Your task to perform on an android device: Open Reddit.com Image 0: 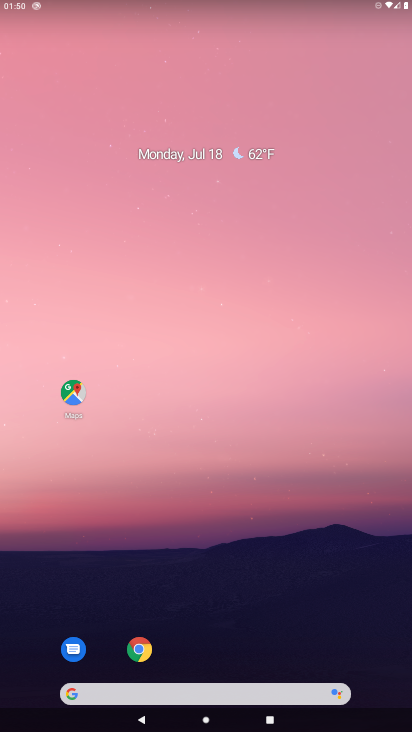
Step 0: click (115, 672)
Your task to perform on an android device: Open Reddit.com Image 1: 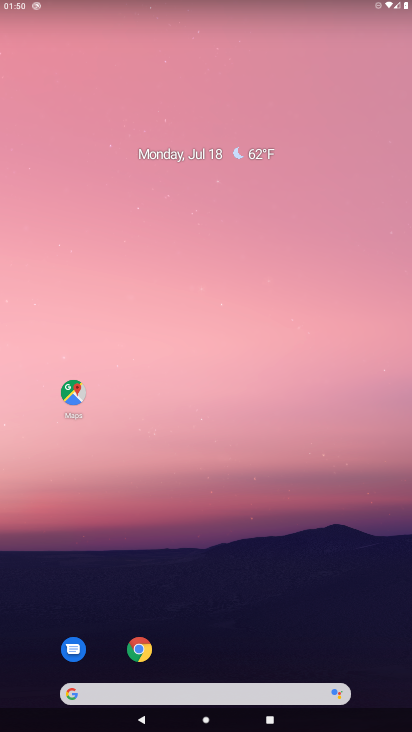
Step 1: click (109, 690)
Your task to perform on an android device: Open Reddit.com Image 2: 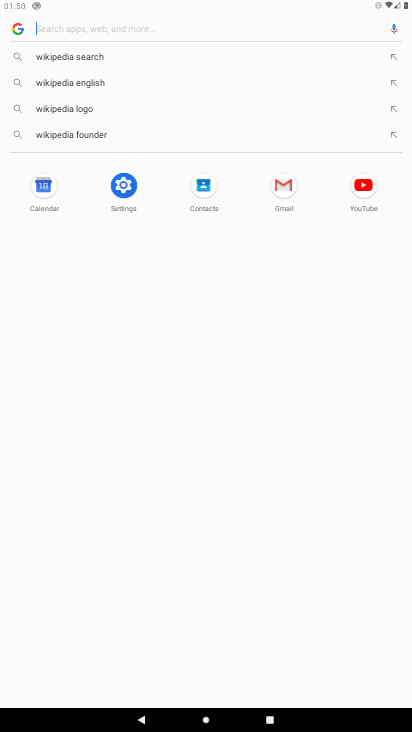
Step 2: type "Reddit.com"
Your task to perform on an android device: Open Reddit.com Image 3: 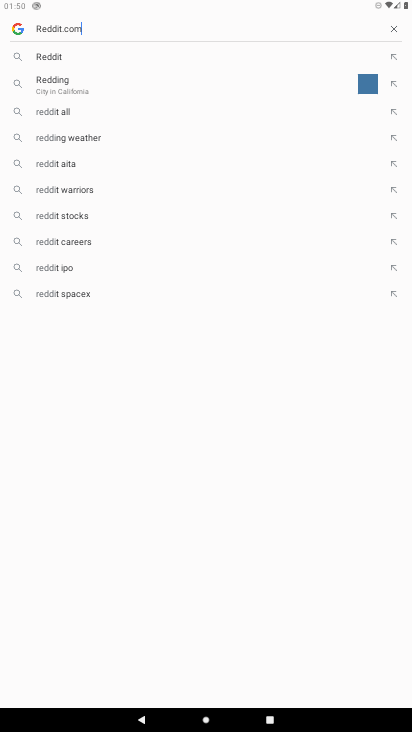
Step 3: type ""
Your task to perform on an android device: Open Reddit.com Image 4: 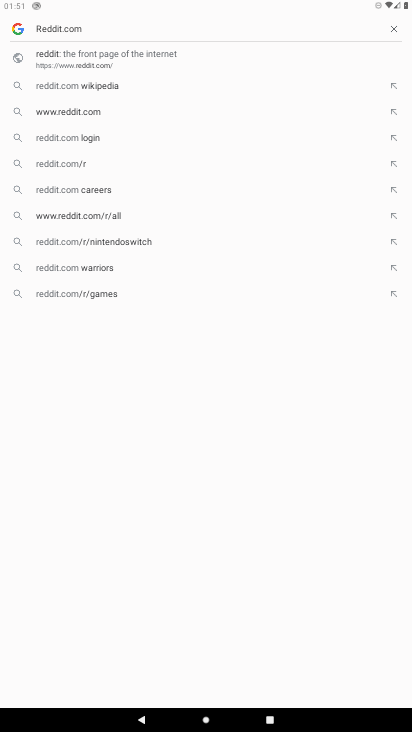
Step 4: type ""
Your task to perform on an android device: Open Reddit.com Image 5: 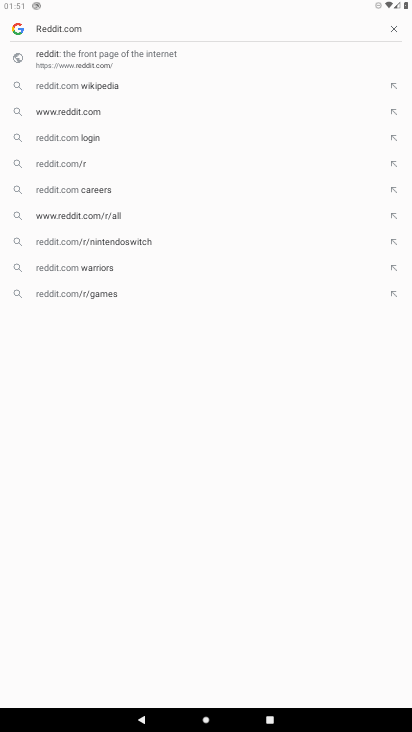
Step 5: type ""
Your task to perform on an android device: Open Reddit.com Image 6: 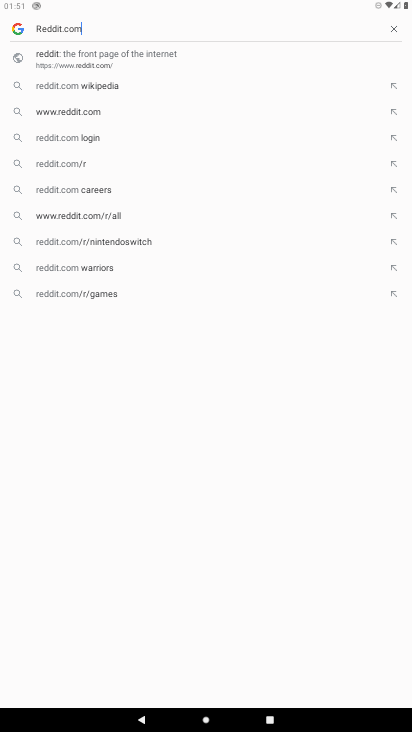
Step 6: task complete